Your task to perform on an android device: toggle sleep mode Image 0: 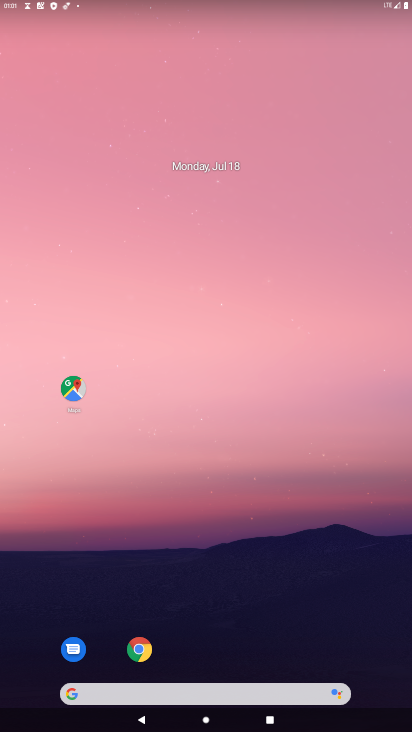
Step 0: drag from (188, 578) to (237, 56)
Your task to perform on an android device: toggle sleep mode Image 1: 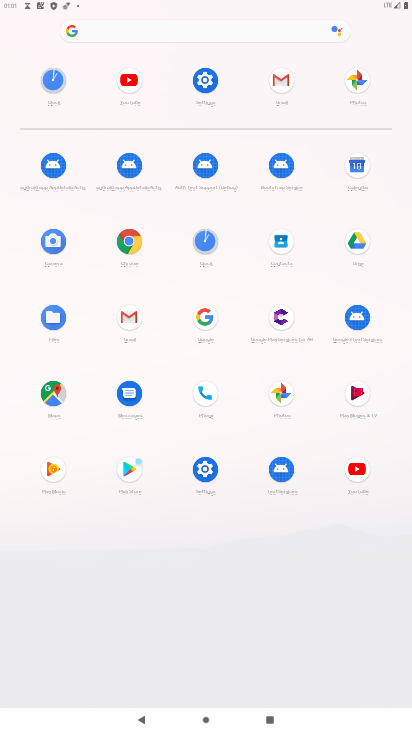
Step 1: task complete